Your task to perform on an android device: Open internet settings Image 0: 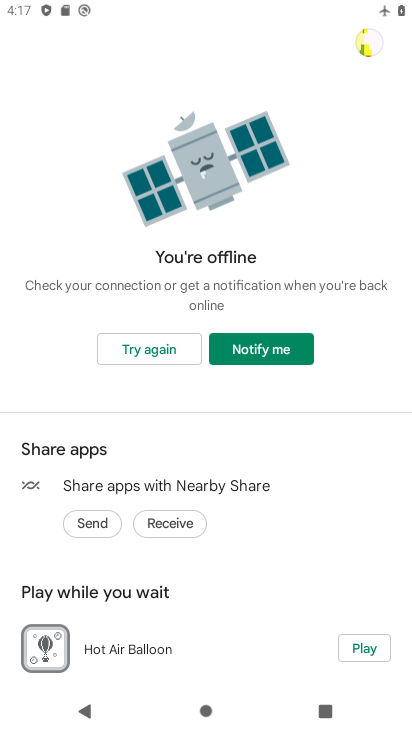
Step 0: press home button
Your task to perform on an android device: Open internet settings Image 1: 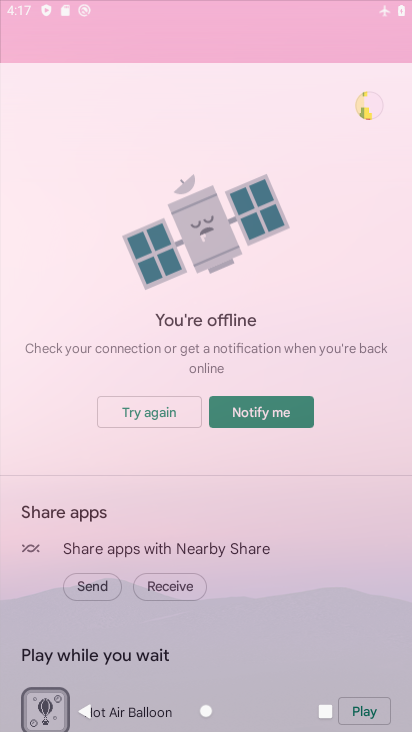
Step 1: press home button
Your task to perform on an android device: Open internet settings Image 2: 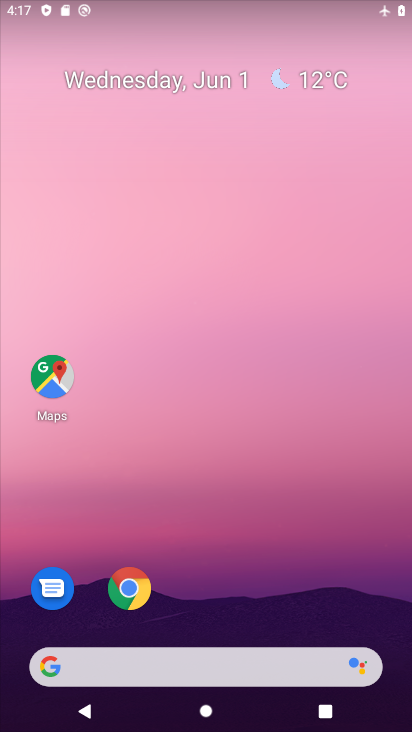
Step 2: drag from (334, 554) to (290, 11)
Your task to perform on an android device: Open internet settings Image 3: 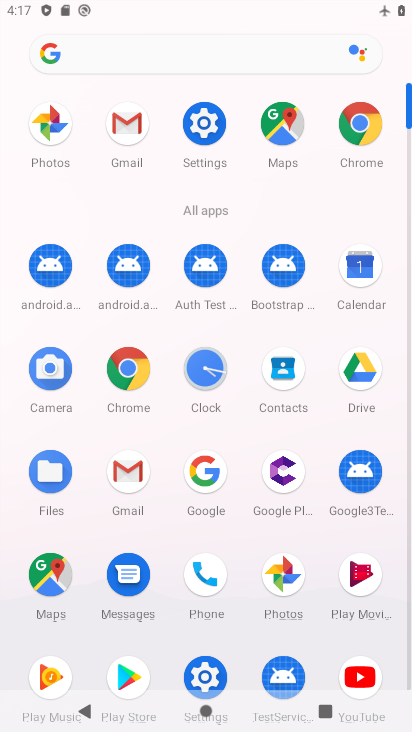
Step 3: click (197, 127)
Your task to perform on an android device: Open internet settings Image 4: 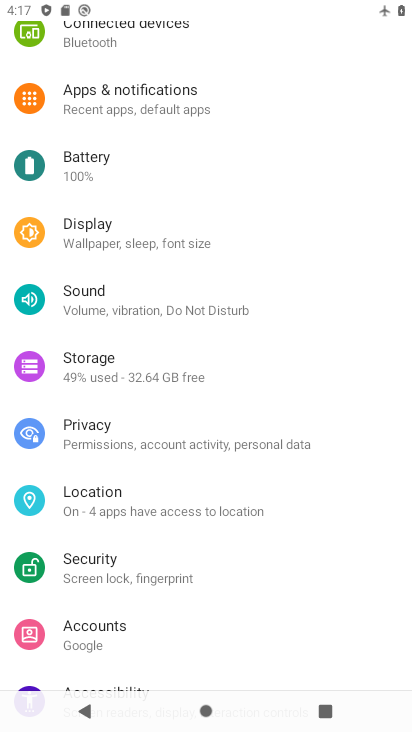
Step 4: drag from (202, 146) to (295, 527)
Your task to perform on an android device: Open internet settings Image 5: 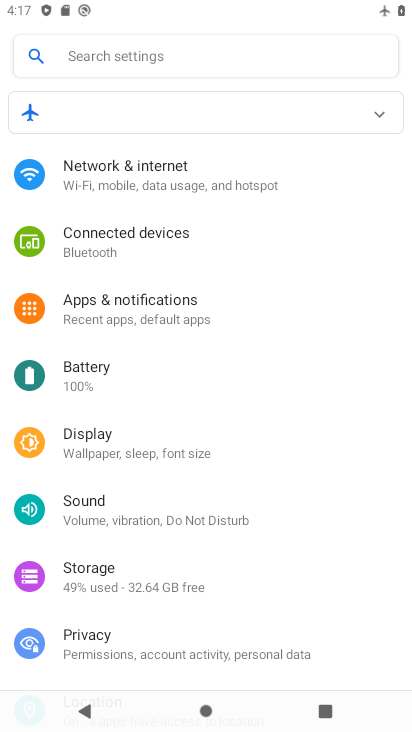
Step 5: drag from (185, 360) to (235, 664)
Your task to perform on an android device: Open internet settings Image 6: 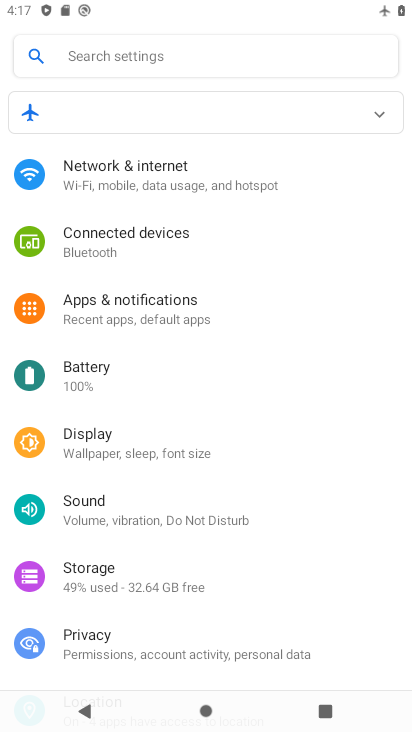
Step 6: click (142, 168)
Your task to perform on an android device: Open internet settings Image 7: 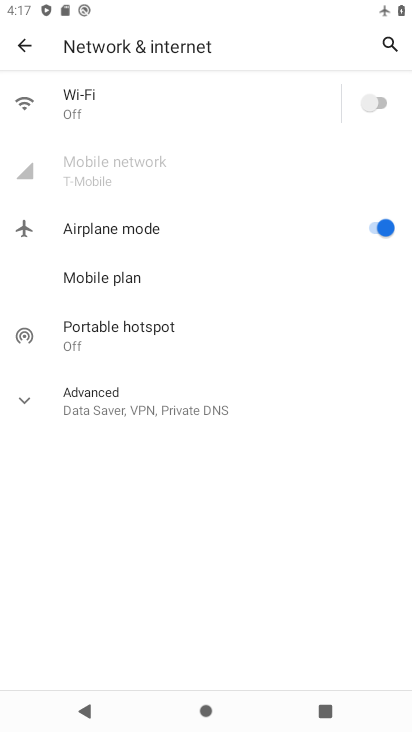
Step 7: task complete